Your task to perform on an android device: show emergency info Image 0: 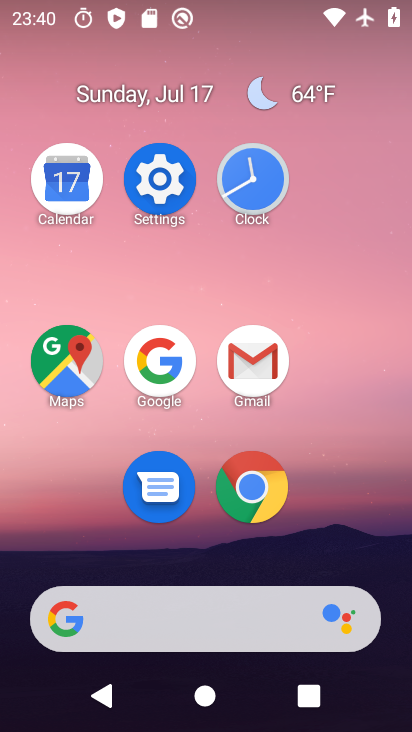
Step 0: click (168, 162)
Your task to perform on an android device: show emergency info Image 1: 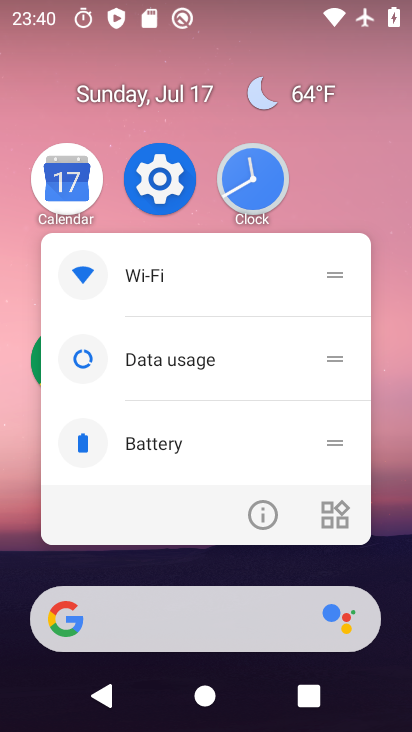
Step 1: click (183, 173)
Your task to perform on an android device: show emergency info Image 2: 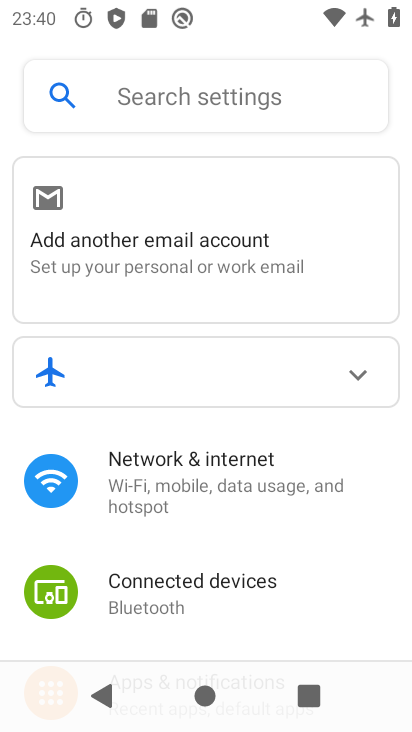
Step 2: drag from (228, 564) to (261, 268)
Your task to perform on an android device: show emergency info Image 3: 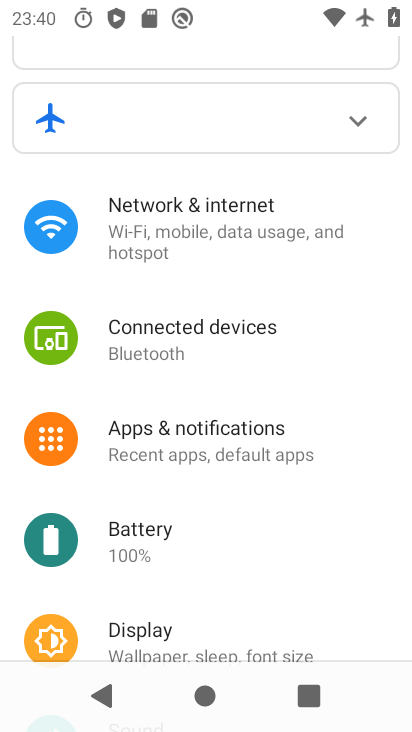
Step 3: drag from (262, 541) to (292, 230)
Your task to perform on an android device: show emergency info Image 4: 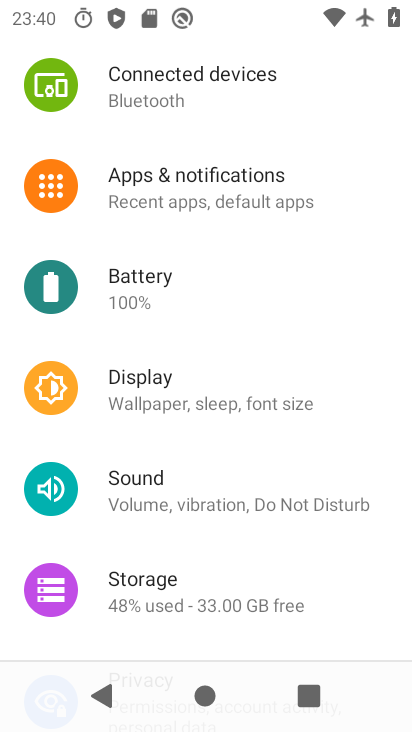
Step 4: drag from (258, 542) to (289, 244)
Your task to perform on an android device: show emergency info Image 5: 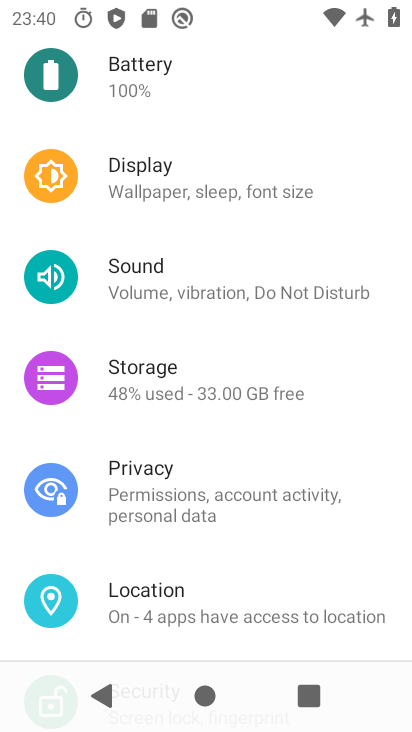
Step 5: drag from (234, 558) to (280, 207)
Your task to perform on an android device: show emergency info Image 6: 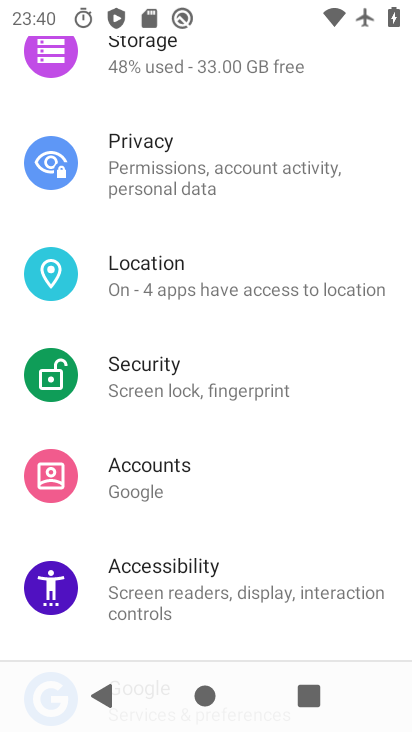
Step 6: drag from (254, 522) to (297, 163)
Your task to perform on an android device: show emergency info Image 7: 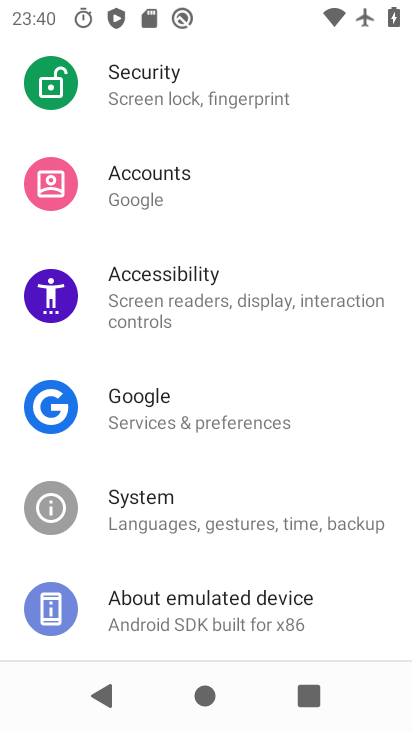
Step 7: drag from (243, 523) to (271, 222)
Your task to perform on an android device: show emergency info Image 8: 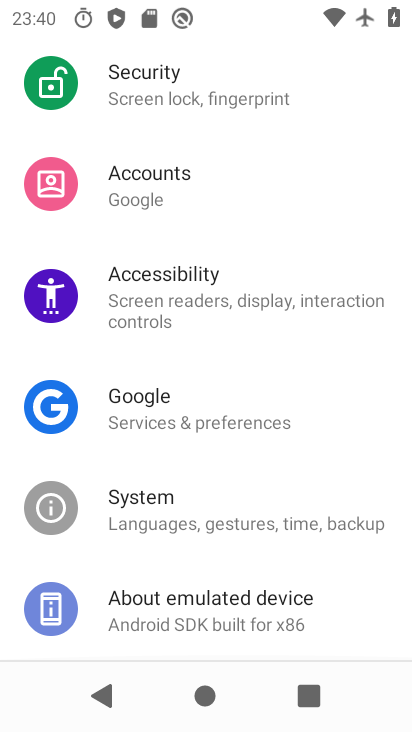
Step 8: click (229, 610)
Your task to perform on an android device: show emergency info Image 9: 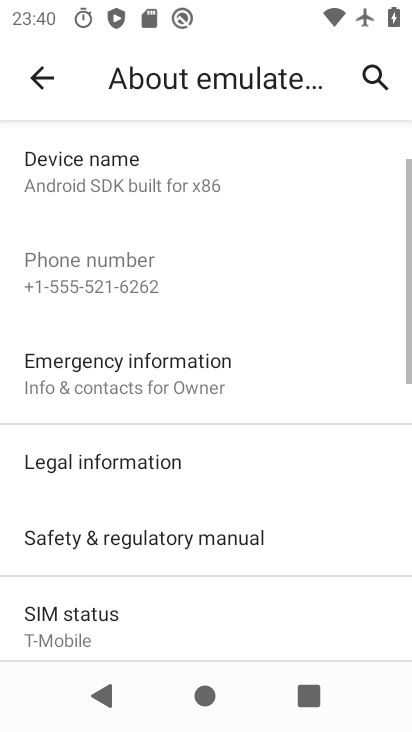
Step 9: click (226, 392)
Your task to perform on an android device: show emergency info Image 10: 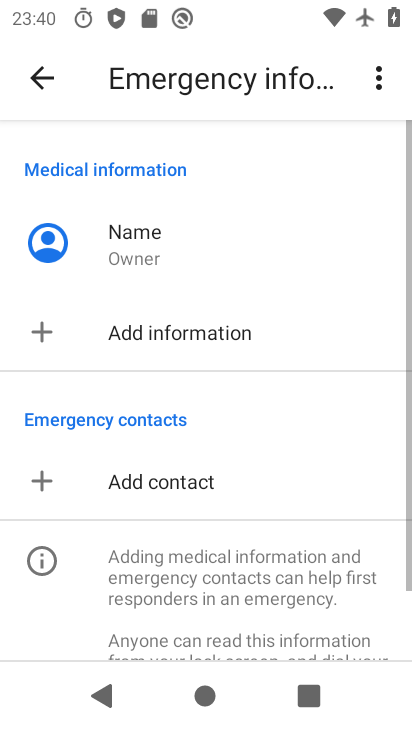
Step 10: task complete